Your task to perform on an android device: Open Wikipedia Image 0: 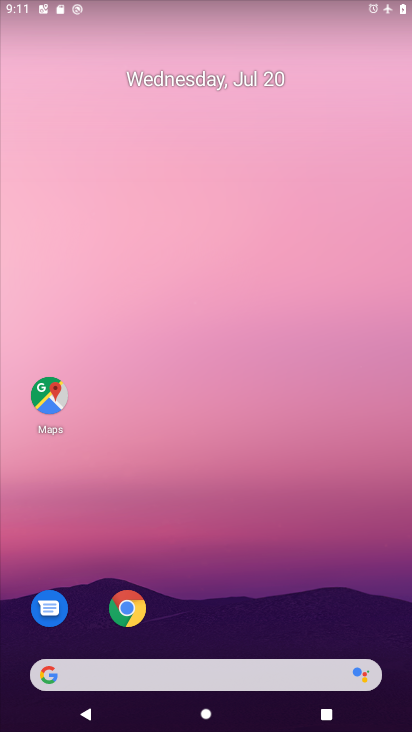
Step 0: click (139, 601)
Your task to perform on an android device: Open Wikipedia Image 1: 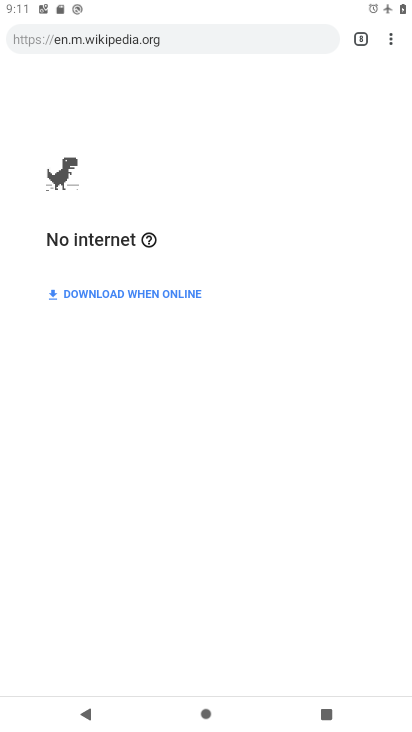
Step 1: click (394, 28)
Your task to perform on an android device: Open Wikipedia Image 2: 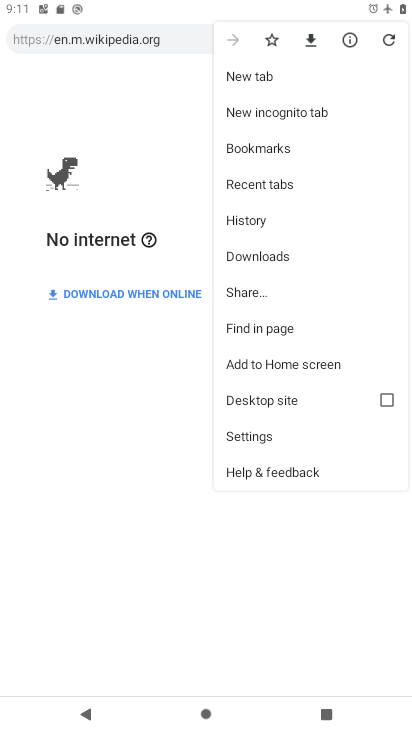
Step 2: click (259, 73)
Your task to perform on an android device: Open Wikipedia Image 3: 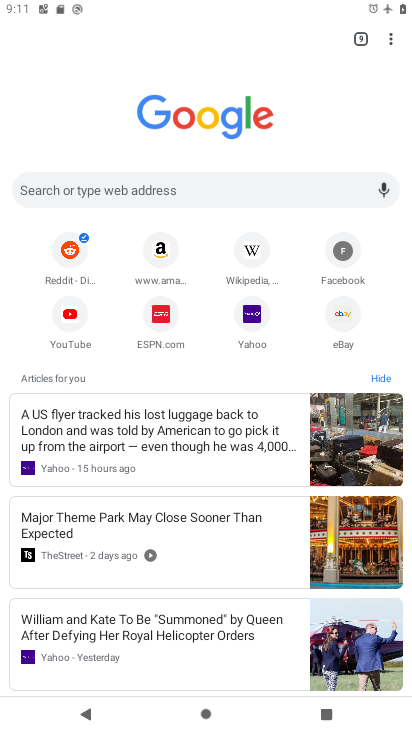
Step 3: click (253, 245)
Your task to perform on an android device: Open Wikipedia Image 4: 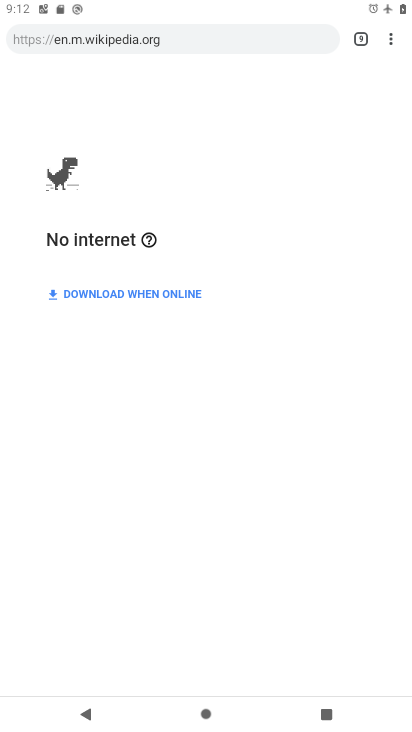
Step 4: task complete